Your task to perform on an android device: change timer sound Image 0: 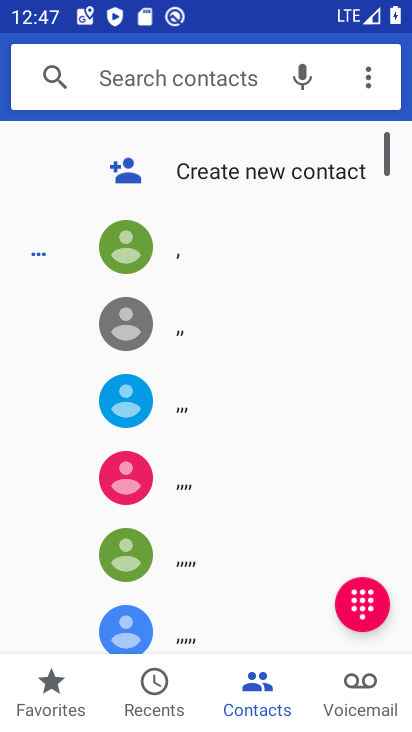
Step 0: press home button
Your task to perform on an android device: change timer sound Image 1: 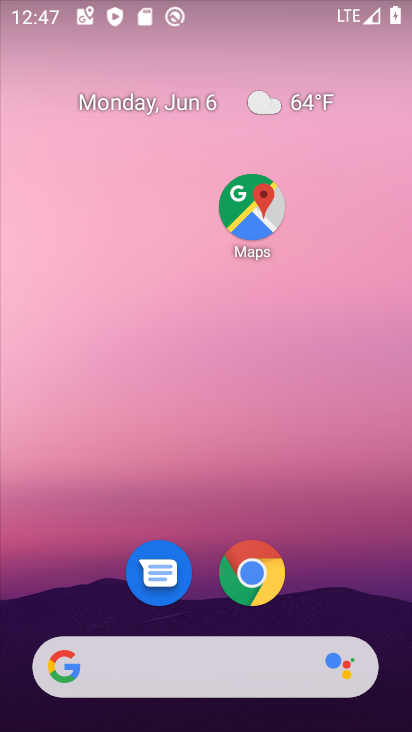
Step 1: drag from (214, 424) to (165, 2)
Your task to perform on an android device: change timer sound Image 2: 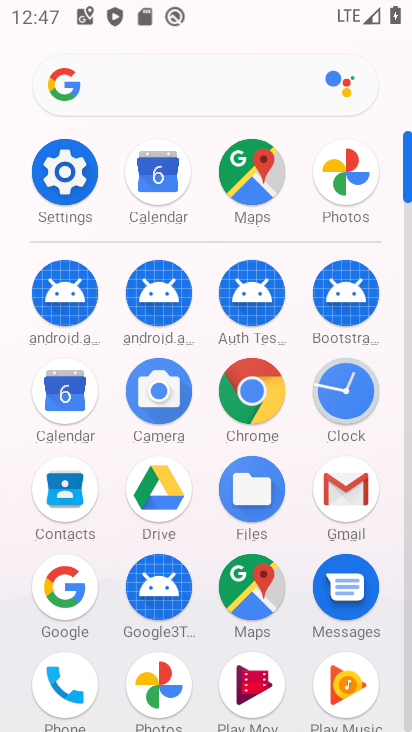
Step 2: drag from (213, 255) to (239, 27)
Your task to perform on an android device: change timer sound Image 3: 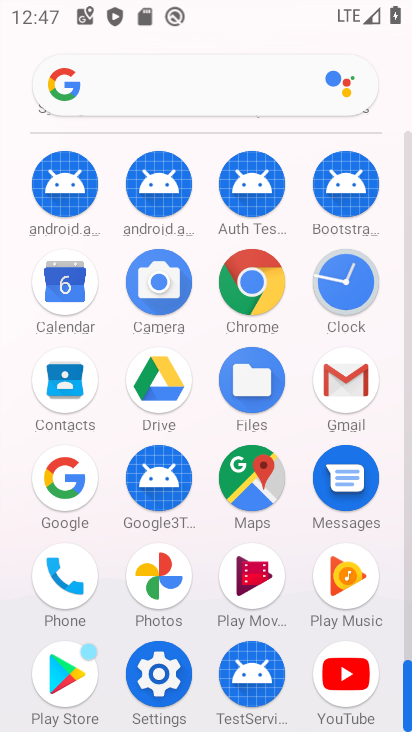
Step 3: click (352, 292)
Your task to perform on an android device: change timer sound Image 4: 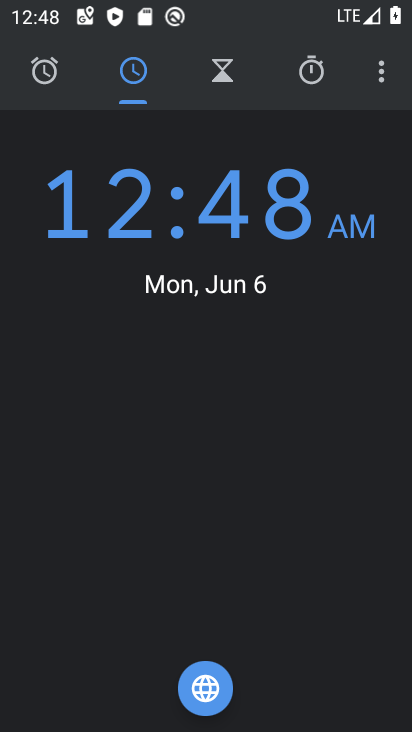
Step 4: click (381, 83)
Your task to perform on an android device: change timer sound Image 5: 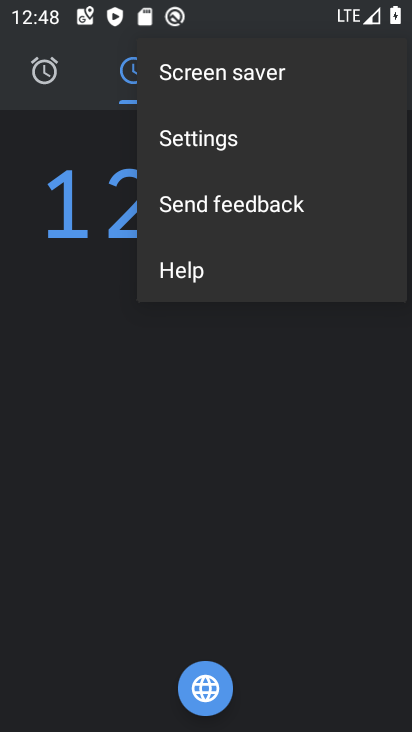
Step 5: click (235, 145)
Your task to perform on an android device: change timer sound Image 6: 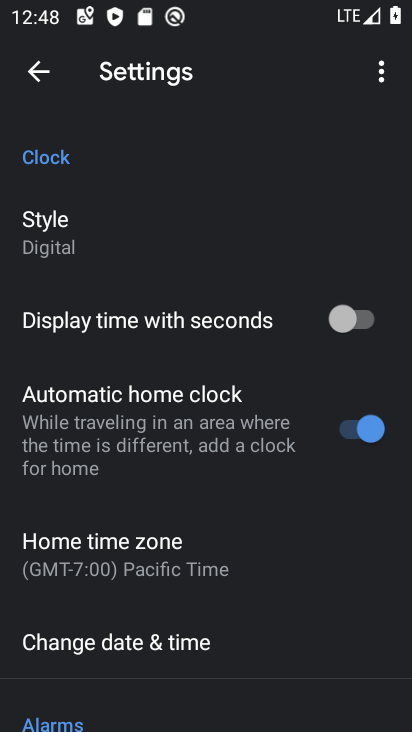
Step 6: drag from (176, 588) to (228, 127)
Your task to perform on an android device: change timer sound Image 7: 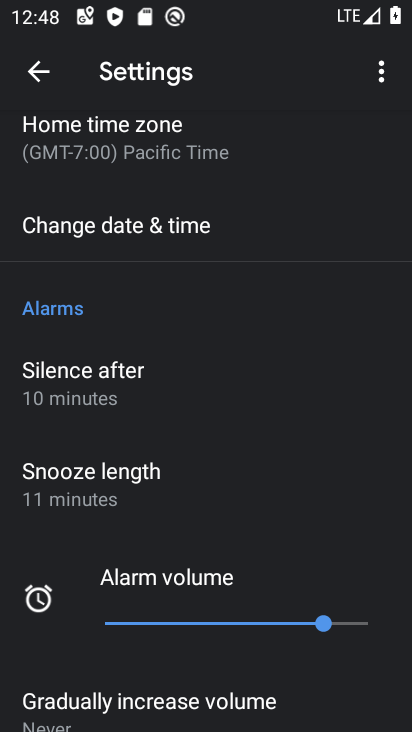
Step 7: drag from (111, 515) to (257, 55)
Your task to perform on an android device: change timer sound Image 8: 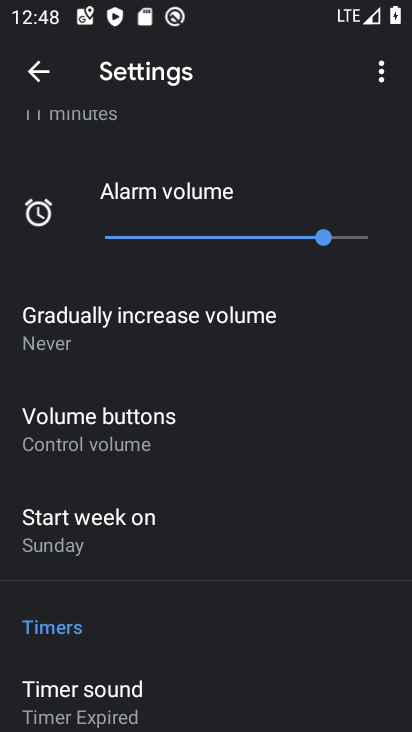
Step 8: drag from (88, 566) to (188, 202)
Your task to perform on an android device: change timer sound Image 9: 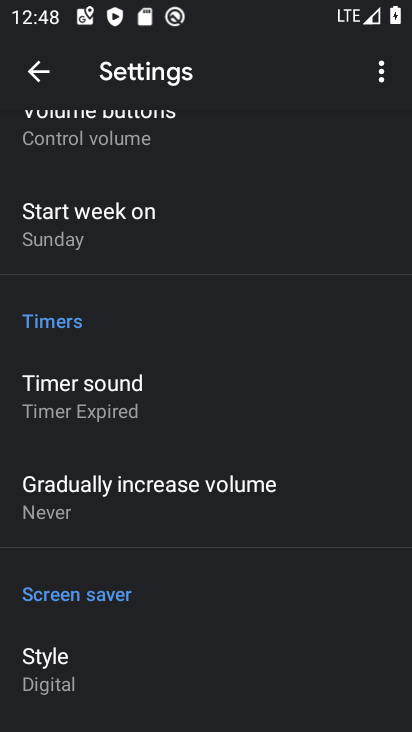
Step 9: click (151, 407)
Your task to perform on an android device: change timer sound Image 10: 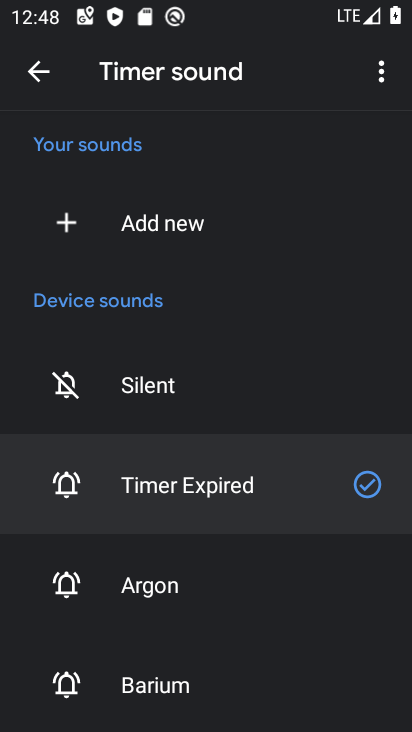
Step 10: click (220, 616)
Your task to perform on an android device: change timer sound Image 11: 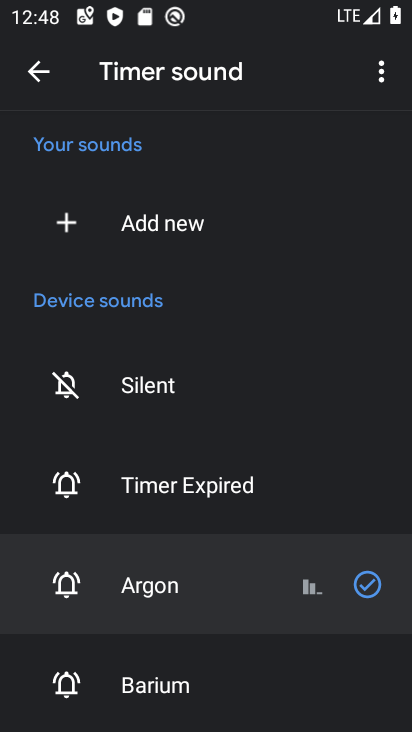
Step 11: task complete